Your task to perform on an android device: Open eBay Image 0: 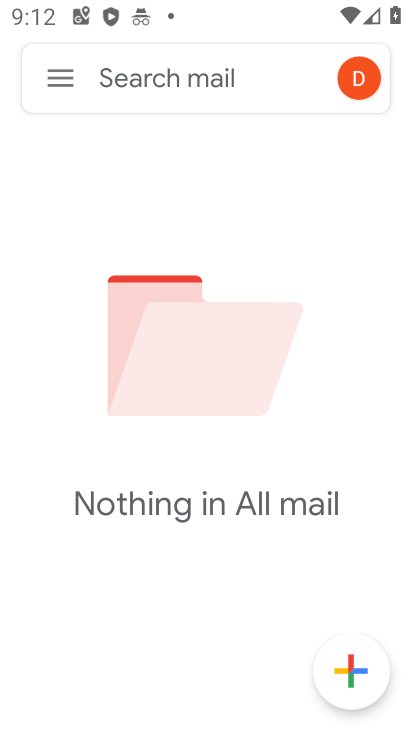
Step 0: press home button
Your task to perform on an android device: Open eBay Image 1: 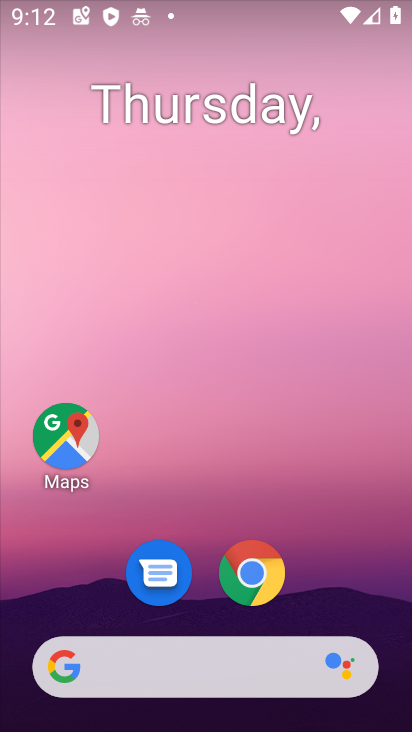
Step 1: drag from (377, 531) to (376, 183)
Your task to perform on an android device: Open eBay Image 2: 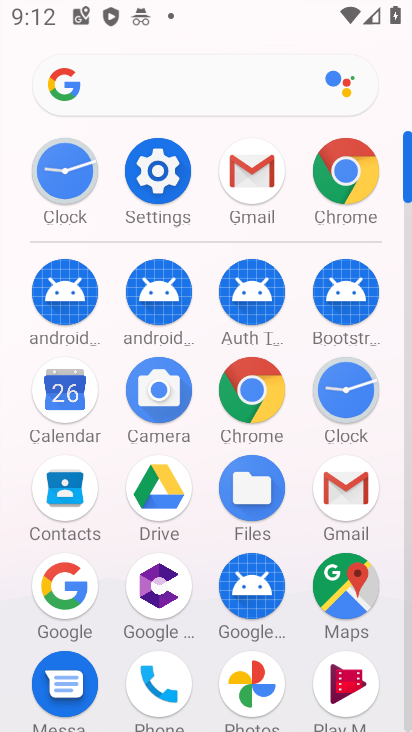
Step 2: click (369, 188)
Your task to perform on an android device: Open eBay Image 3: 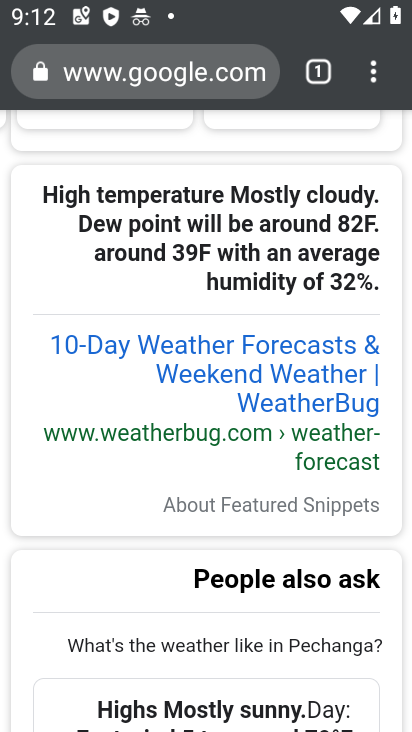
Step 3: click (209, 86)
Your task to perform on an android device: Open eBay Image 4: 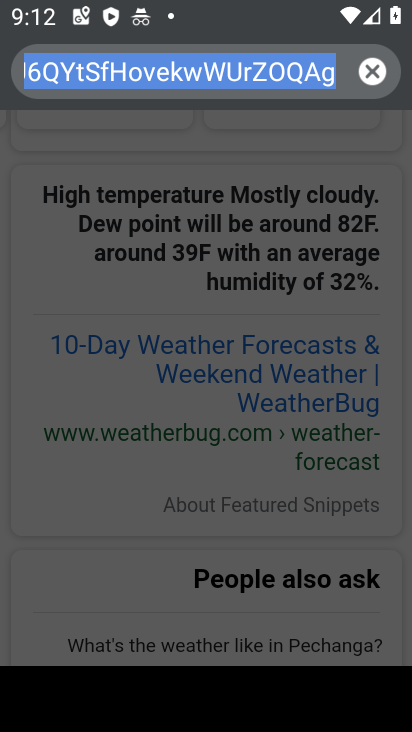
Step 4: click (370, 77)
Your task to perform on an android device: Open eBay Image 5: 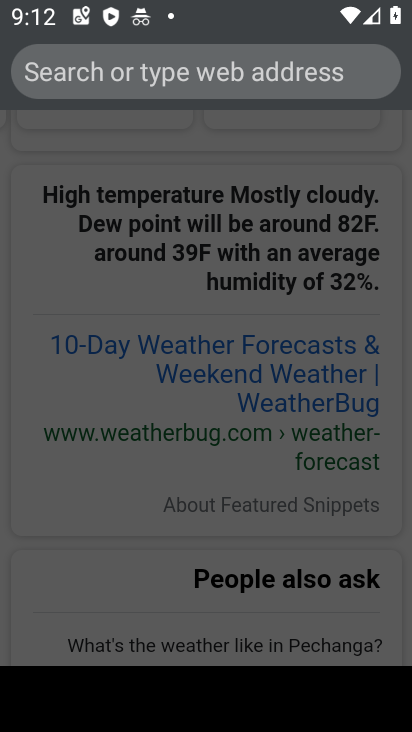
Step 5: type "ebay"
Your task to perform on an android device: Open eBay Image 6: 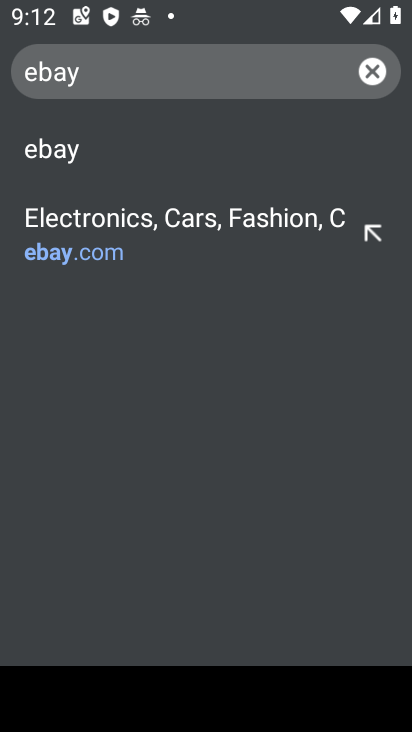
Step 6: click (85, 154)
Your task to perform on an android device: Open eBay Image 7: 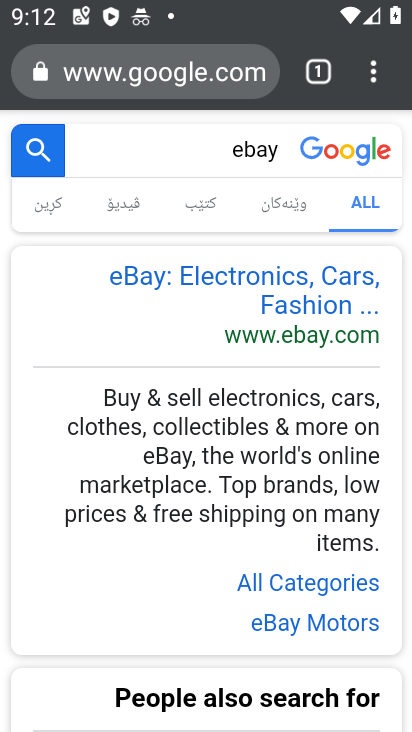
Step 7: click (376, 80)
Your task to perform on an android device: Open eBay Image 8: 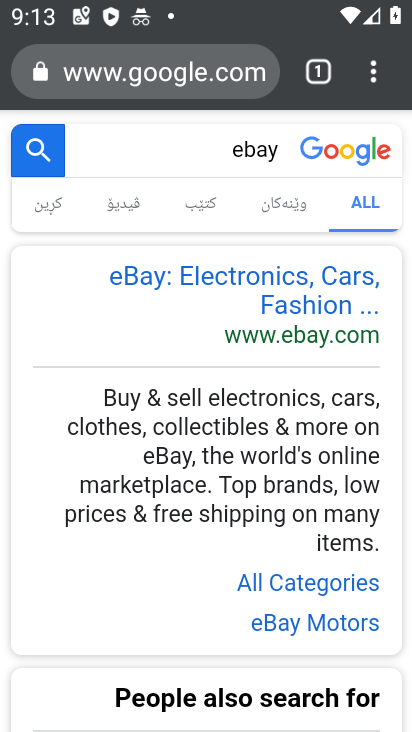
Step 8: task complete